Your task to perform on an android device: remove spam from my inbox in the gmail app Image 0: 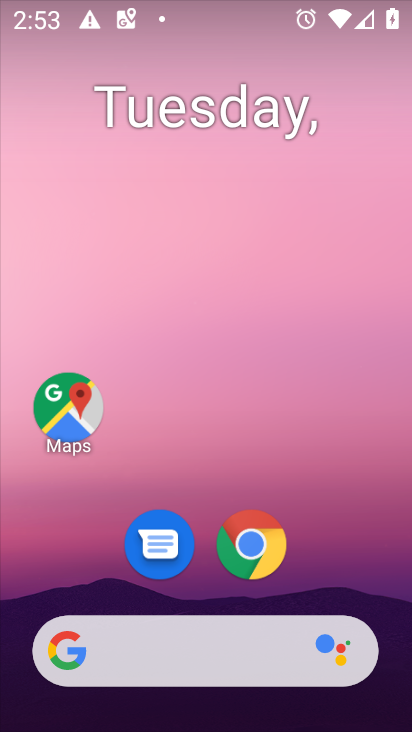
Step 0: drag from (353, 567) to (411, 247)
Your task to perform on an android device: remove spam from my inbox in the gmail app Image 1: 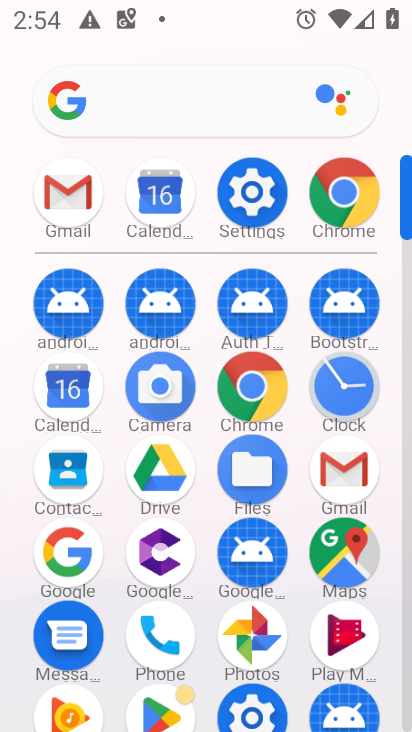
Step 1: drag from (299, 610) to (301, 372)
Your task to perform on an android device: remove spam from my inbox in the gmail app Image 2: 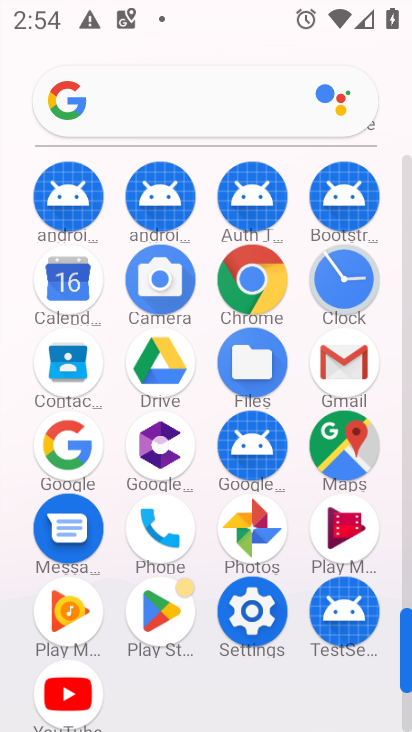
Step 2: click (349, 344)
Your task to perform on an android device: remove spam from my inbox in the gmail app Image 3: 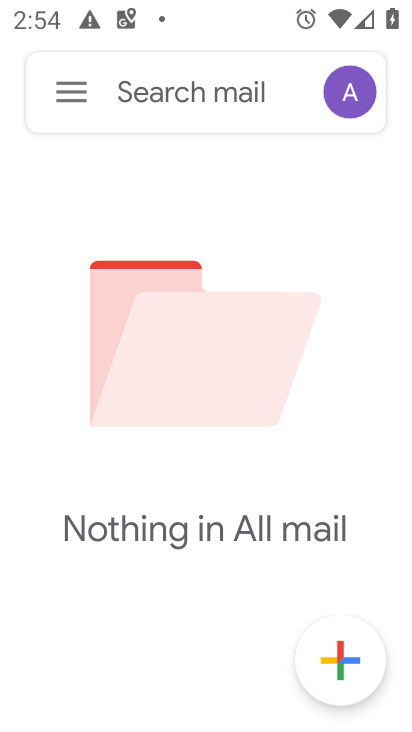
Step 3: click (75, 101)
Your task to perform on an android device: remove spam from my inbox in the gmail app Image 4: 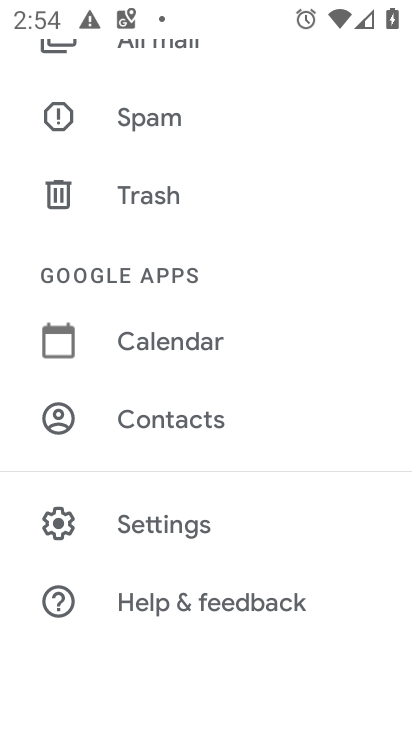
Step 4: drag from (193, 109) to (178, 655)
Your task to perform on an android device: remove spam from my inbox in the gmail app Image 5: 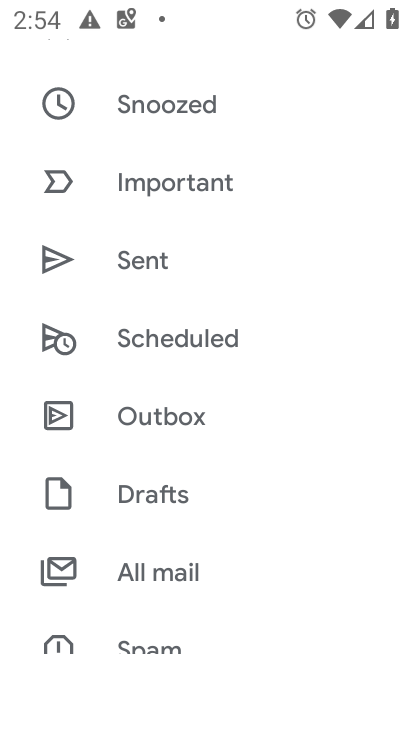
Step 5: drag from (191, 256) to (207, 676)
Your task to perform on an android device: remove spam from my inbox in the gmail app Image 6: 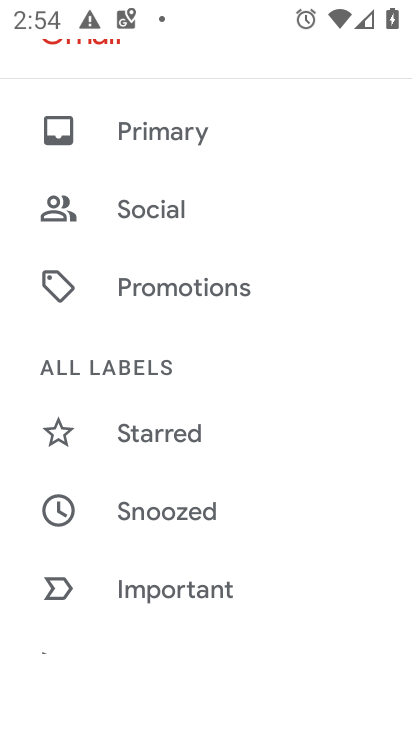
Step 6: drag from (185, 263) to (193, 519)
Your task to perform on an android device: remove spam from my inbox in the gmail app Image 7: 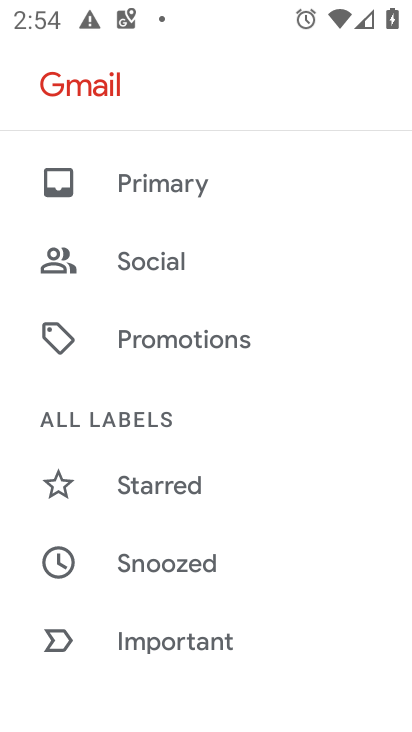
Step 7: click (153, 188)
Your task to perform on an android device: remove spam from my inbox in the gmail app Image 8: 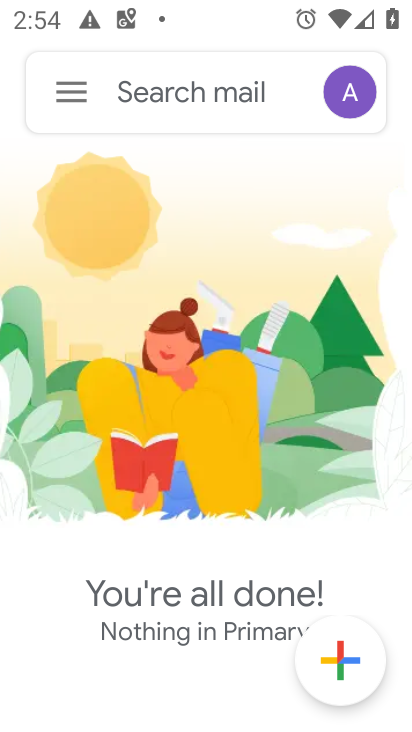
Step 8: task complete